Your task to perform on an android device: check storage Image 0: 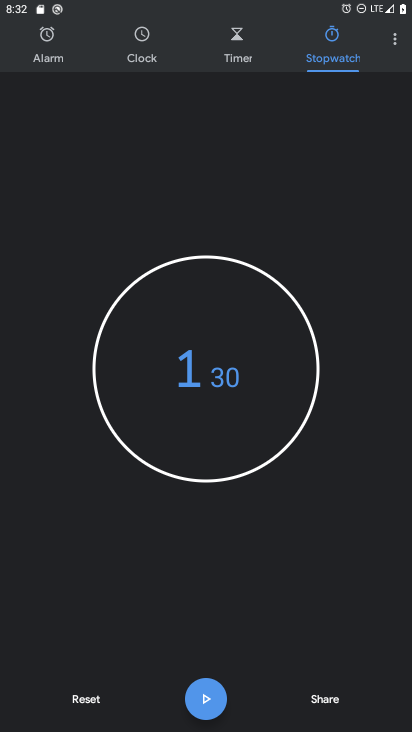
Step 0: press home button
Your task to perform on an android device: check storage Image 1: 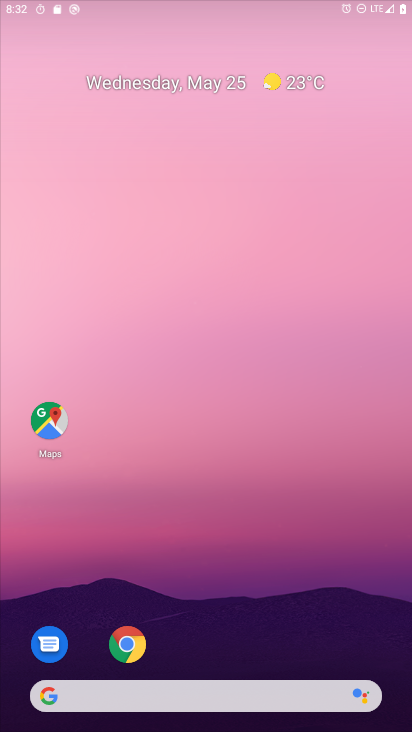
Step 1: drag from (273, 645) to (270, 167)
Your task to perform on an android device: check storage Image 2: 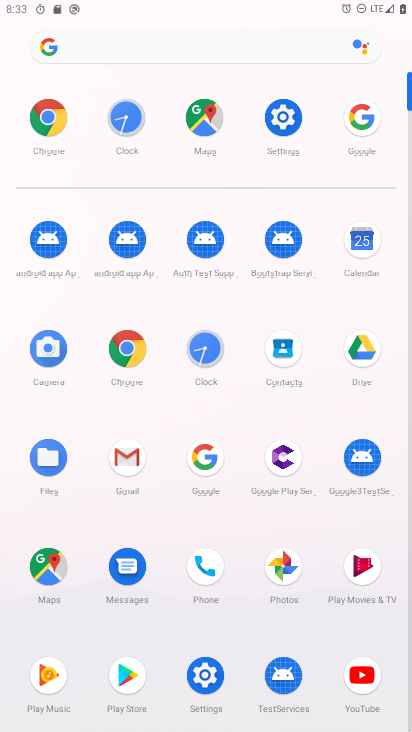
Step 2: click (195, 681)
Your task to perform on an android device: check storage Image 3: 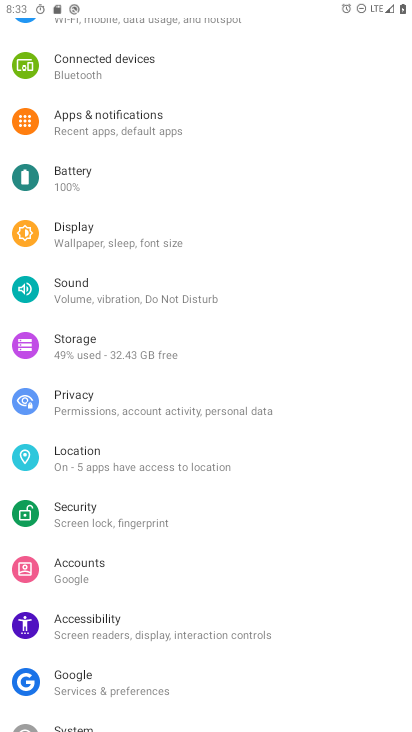
Step 3: click (101, 345)
Your task to perform on an android device: check storage Image 4: 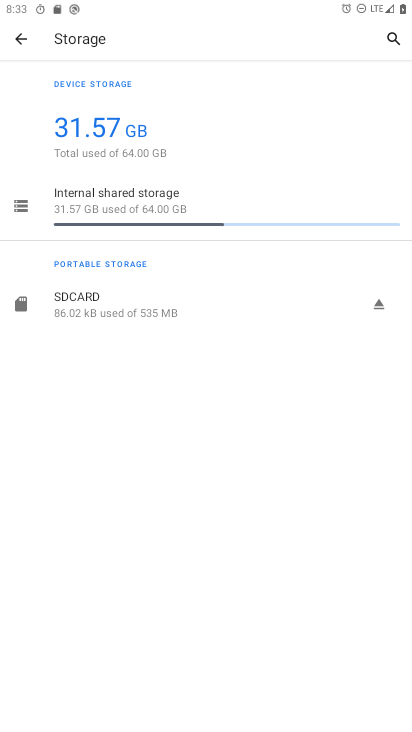
Step 4: click (118, 213)
Your task to perform on an android device: check storage Image 5: 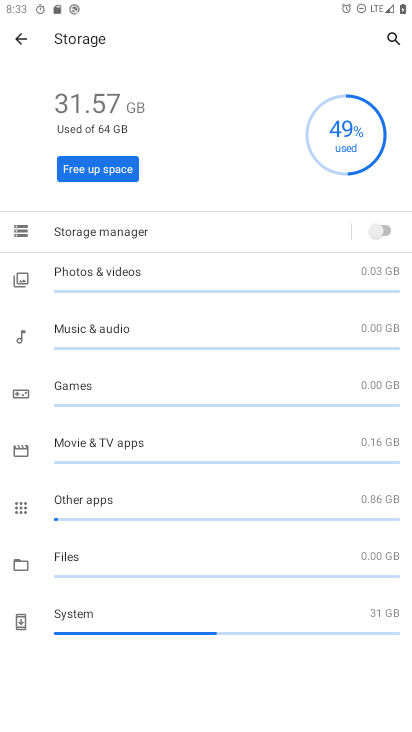
Step 5: task complete